Your task to perform on an android device: What's the weather going to be this weekend? Image 0: 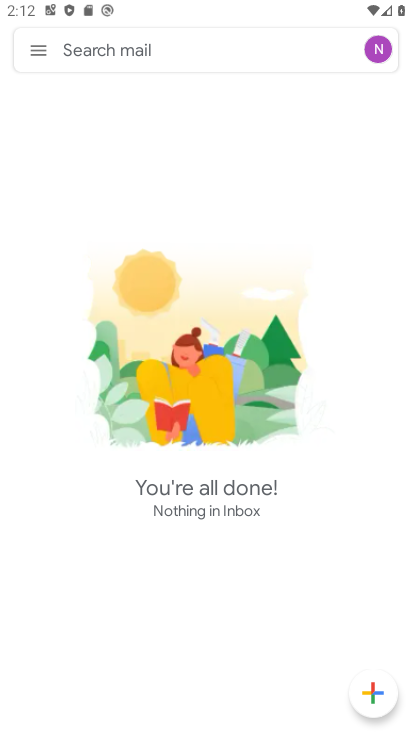
Step 0: press home button
Your task to perform on an android device: What's the weather going to be this weekend? Image 1: 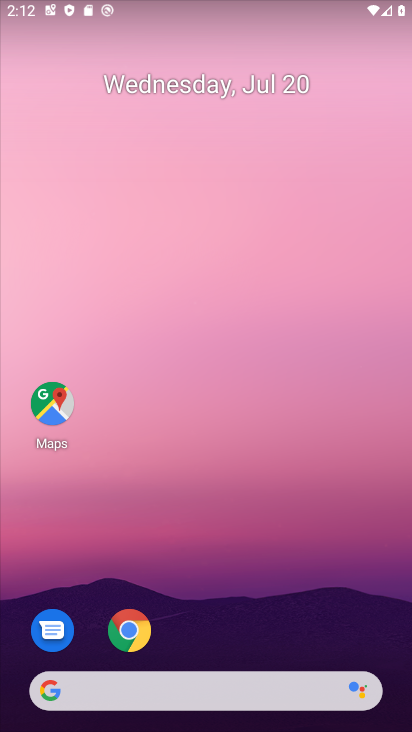
Step 1: drag from (357, 616) to (370, 74)
Your task to perform on an android device: What's the weather going to be this weekend? Image 2: 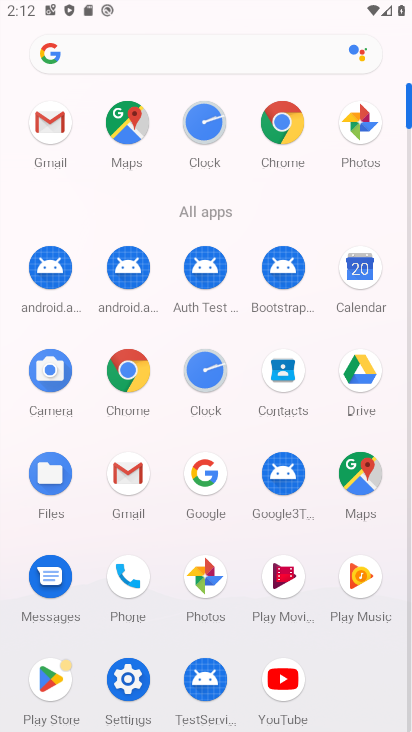
Step 2: click (195, 50)
Your task to perform on an android device: What's the weather going to be this weekend? Image 3: 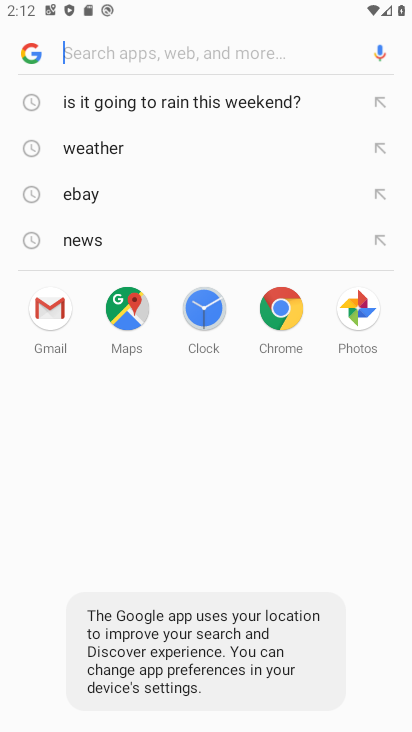
Step 3: click (126, 155)
Your task to perform on an android device: What's the weather going to be this weekend? Image 4: 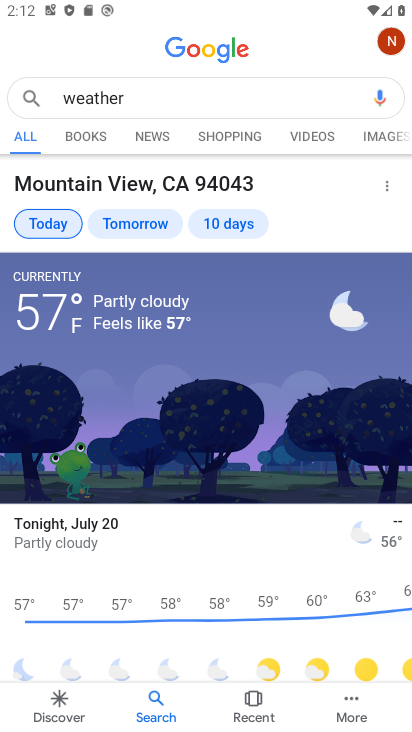
Step 4: click (240, 225)
Your task to perform on an android device: What's the weather going to be this weekend? Image 5: 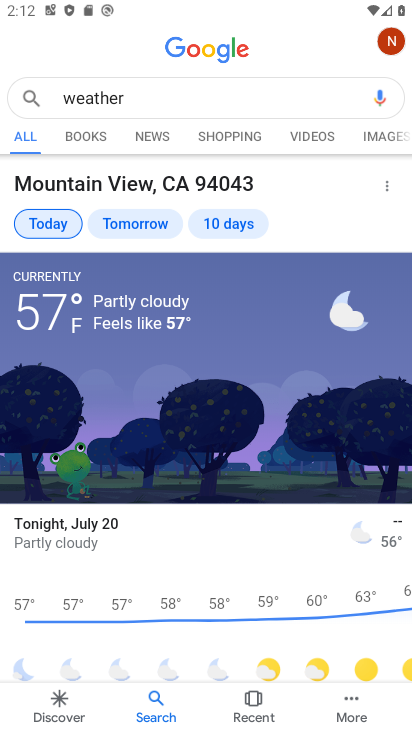
Step 5: task complete